Your task to perform on an android device: install app "Google Photos" Image 0: 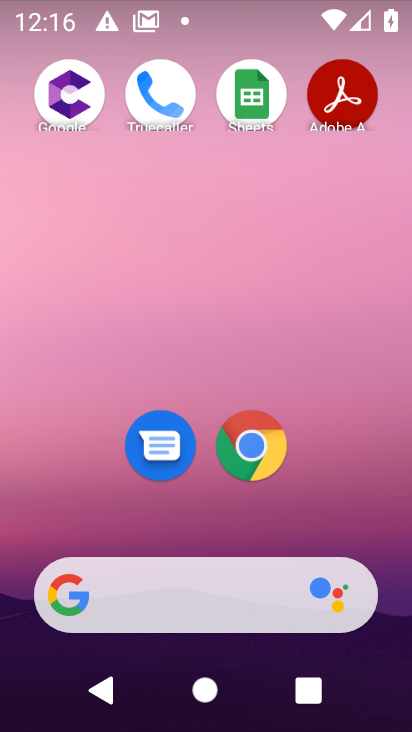
Step 0: drag from (191, 531) to (188, 13)
Your task to perform on an android device: install app "Google Photos" Image 1: 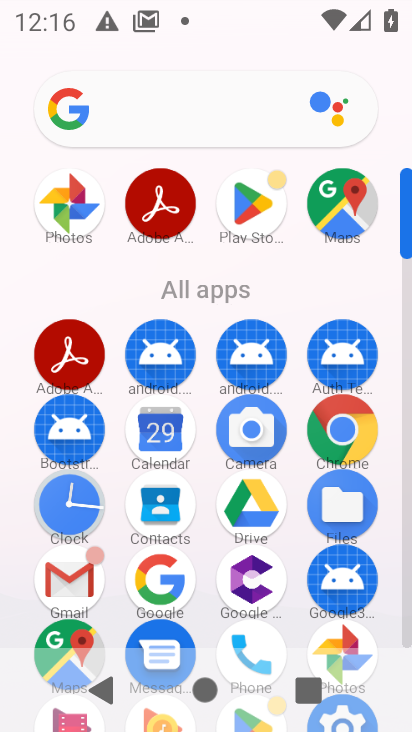
Step 1: task complete